Your task to perform on an android device: delete the emails in spam in the gmail app Image 0: 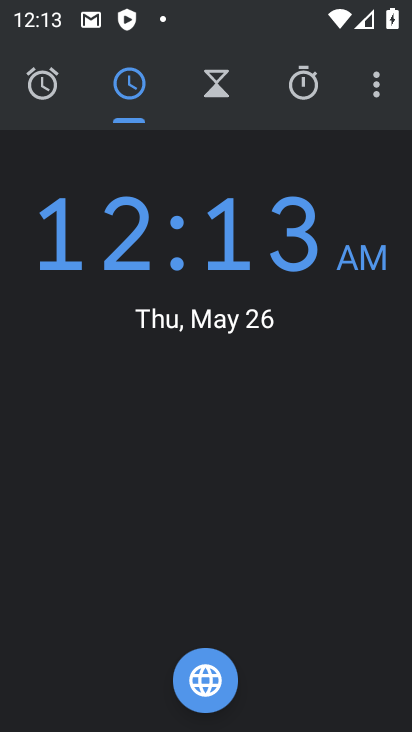
Step 0: press home button
Your task to perform on an android device: delete the emails in spam in the gmail app Image 1: 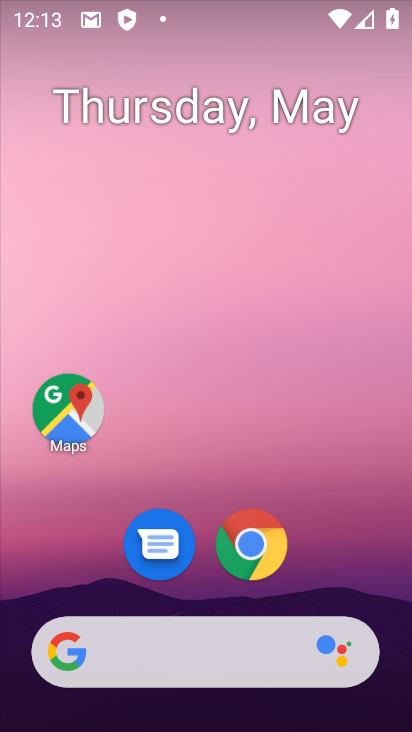
Step 1: drag from (285, 715) to (368, 18)
Your task to perform on an android device: delete the emails in spam in the gmail app Image 2: 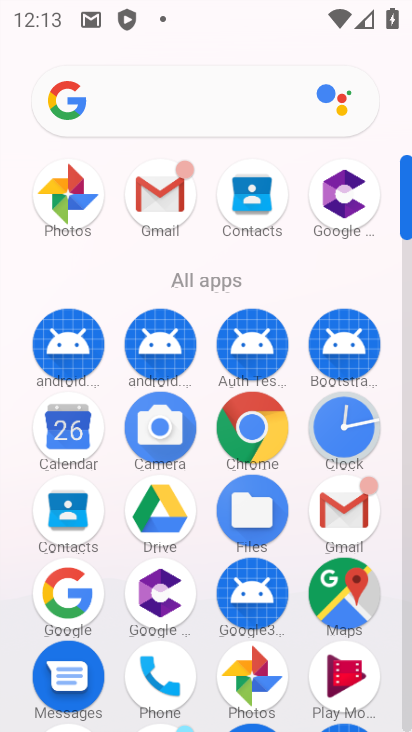
Step 2: click (350, 520)
Your task to perform on an android device: delete the emails in spam in the gmail app Image 3: 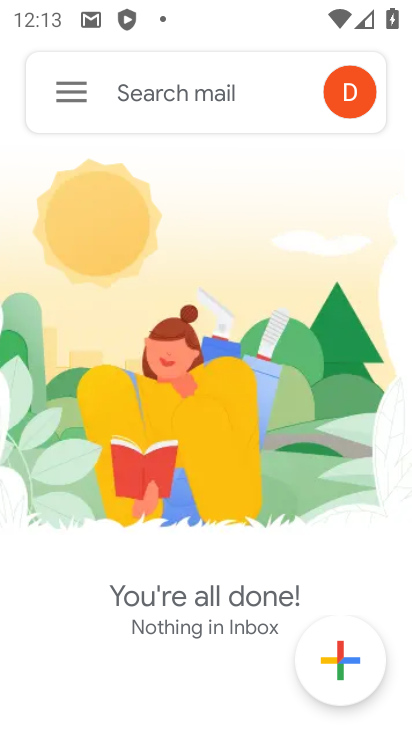
Step 3: click (59, 88)
Your task to perform on an android device: delete the emails in spam in the gmail app Image 4: 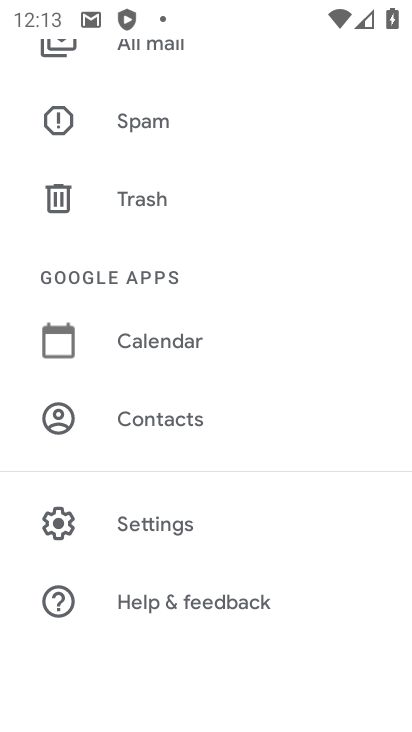
Step 4: click (213, 120)
Your task to perform on an android device: delete the emails in spam in the gmail app Image 5: 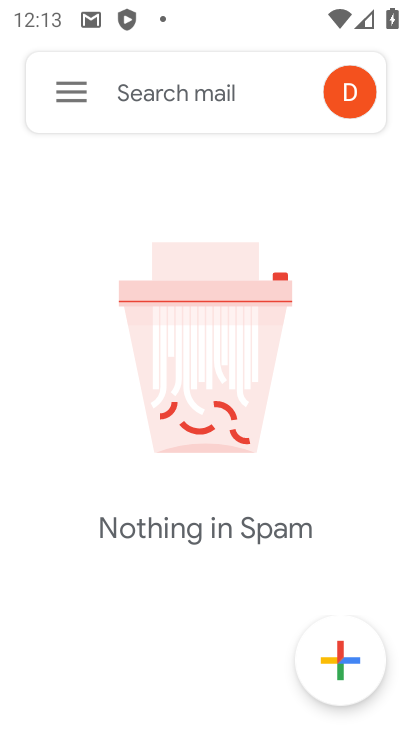
Step 5: task complete